Your task to perform on an android device: turn on javascript in the chrome app Image 0: 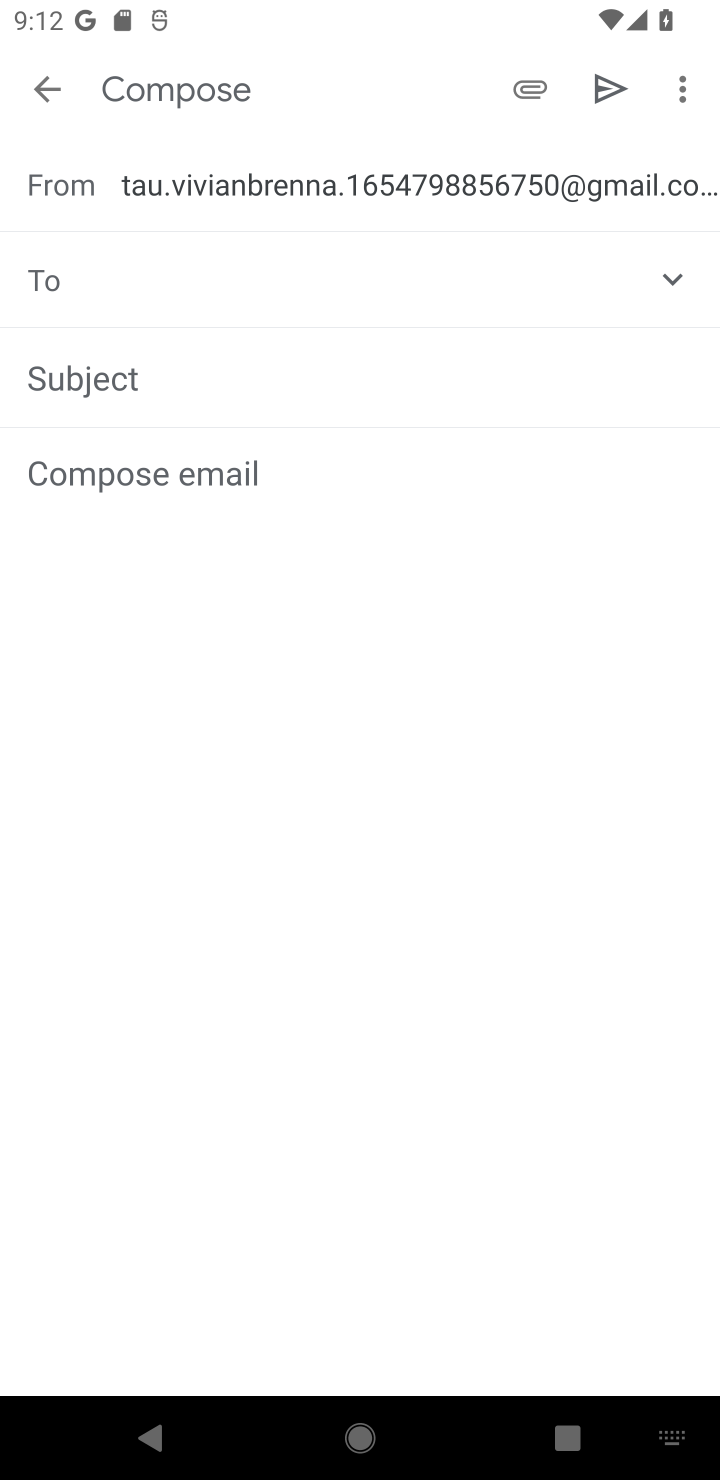
Step 0: press home button
Your task to perform on an android device: turn on javascript in the chrome app Image 1: 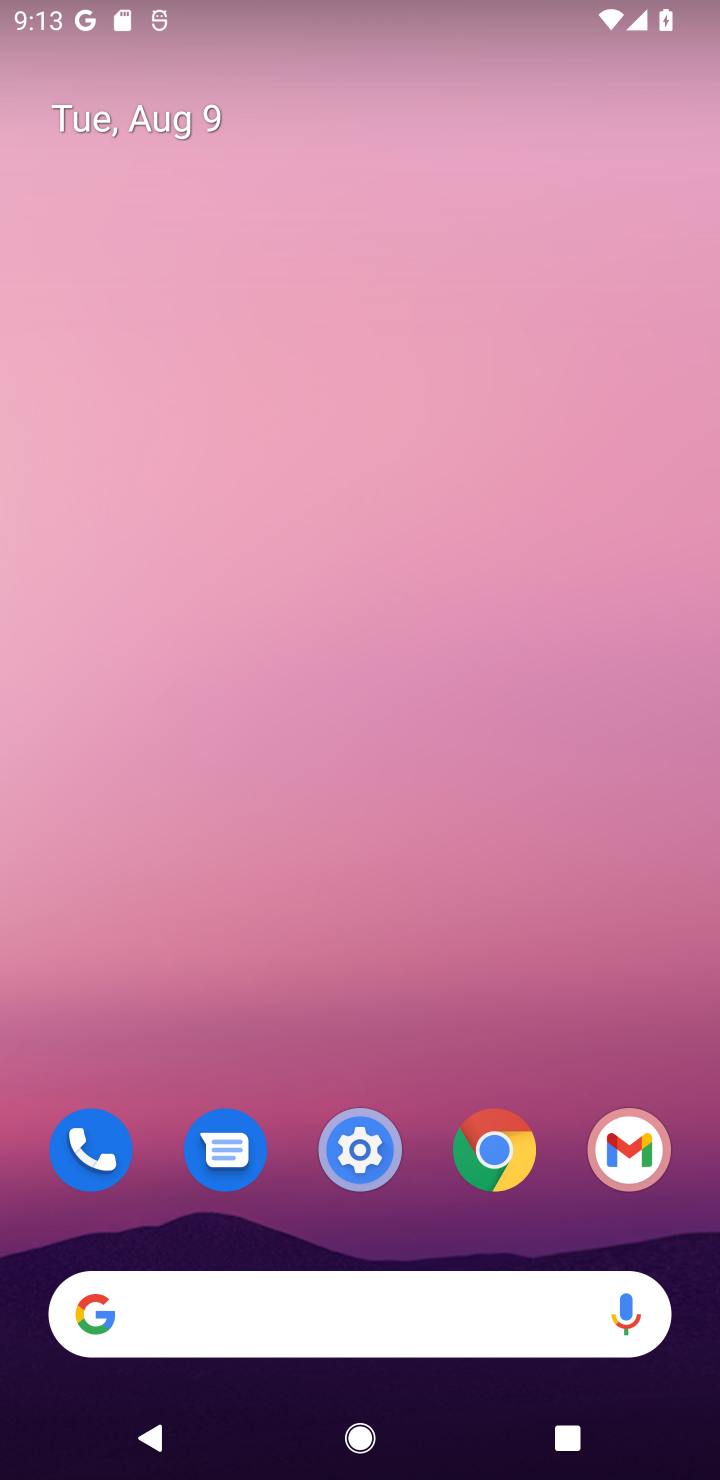
Step 1: drag from (344, 1258) to (353, 984)
Your task to perform on an android device: turn on javascript in the chrome app Image 2: 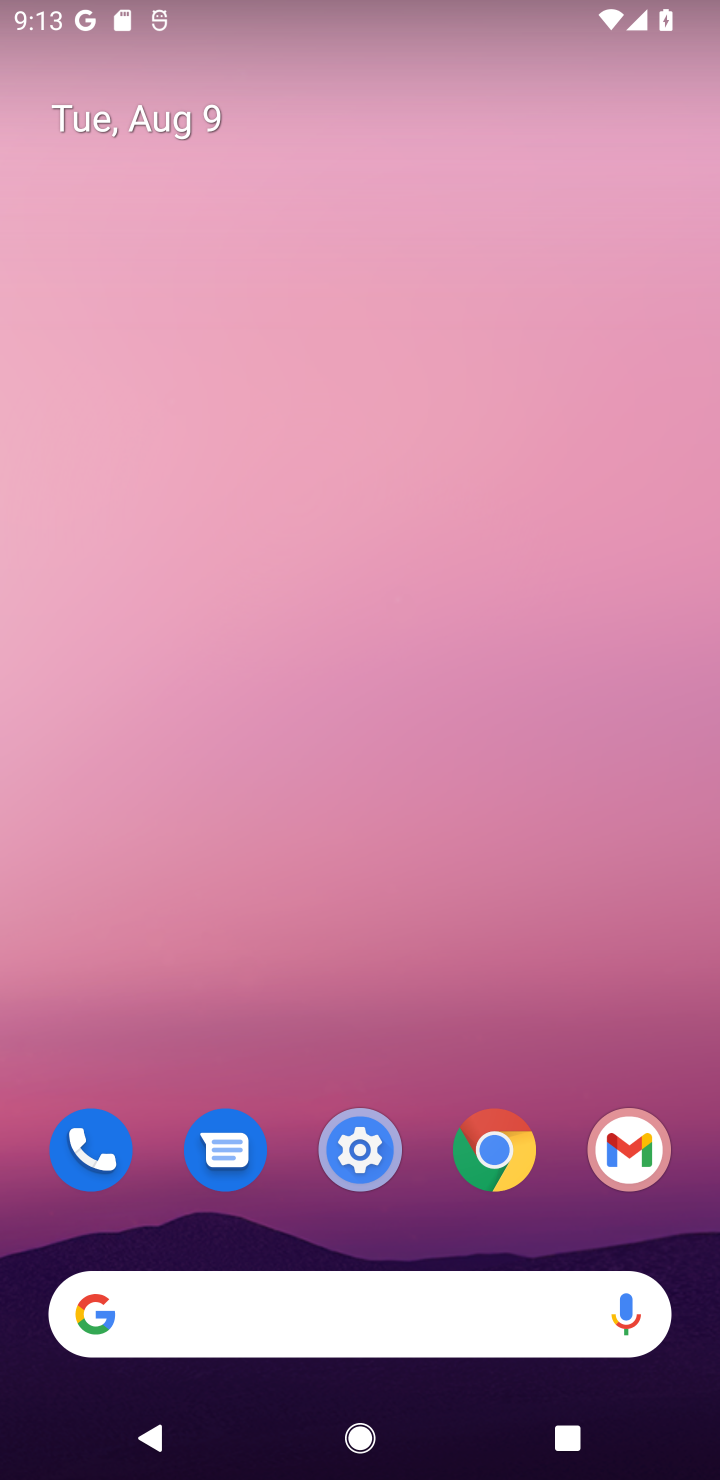
Step 2: drag from (309, 1267) to (284, 238)
Your task to perform on an android device: turn on javascript in the chrome app Image 3: 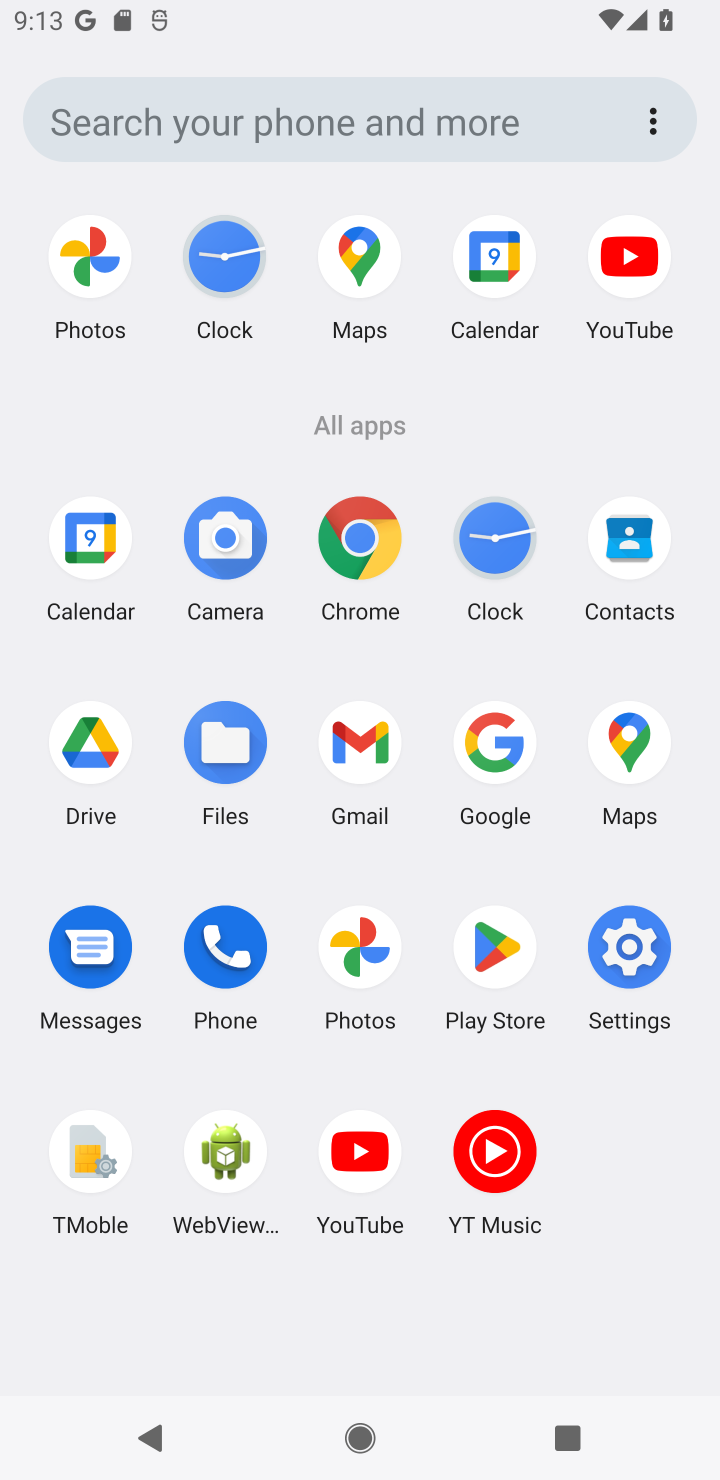
Step 3: click (326, 549)
Your task to perform on an android device: turn on javascript in the chrome app Image 4: 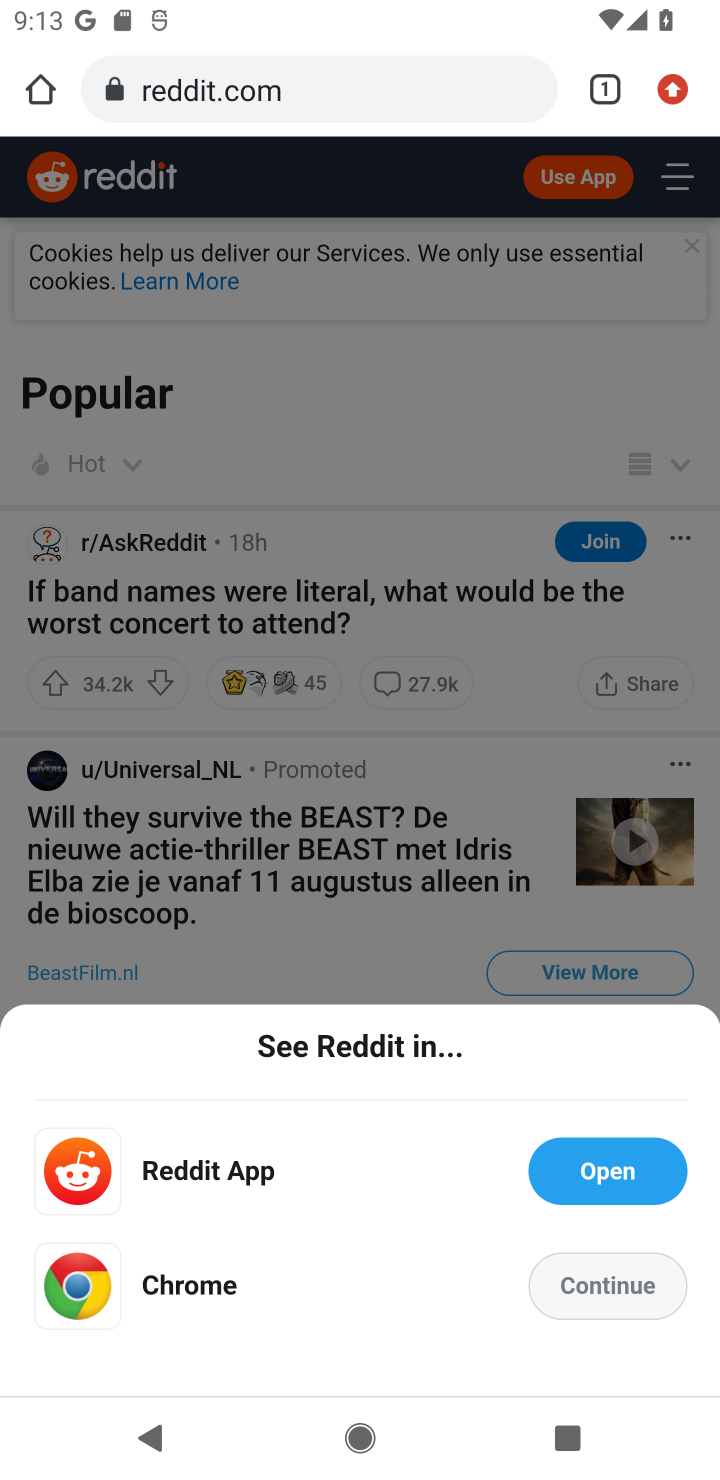
Step 4: click (429, 869)
Your task to perform on an android device: turn on javascript in the chrome app Image 5: 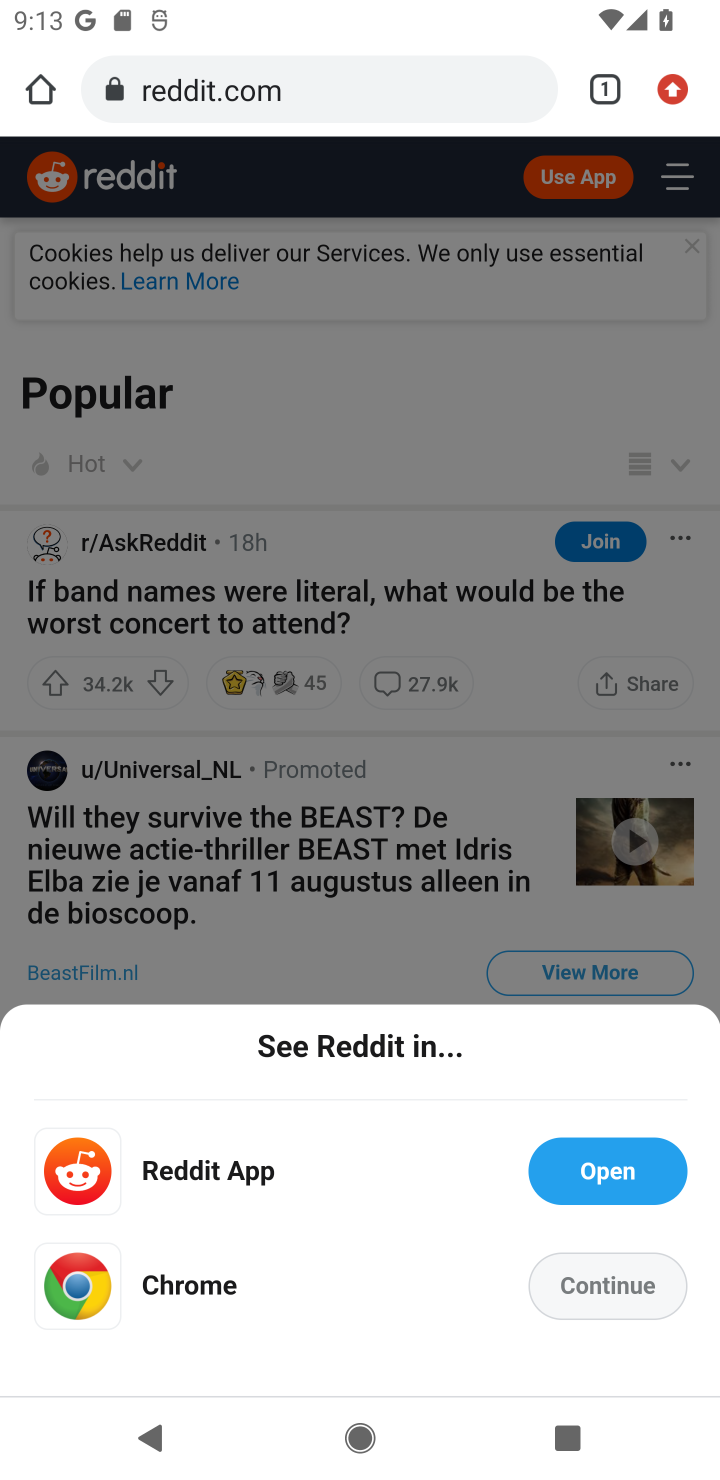
Step 5: click (540, 898)
Your task to perform on an android device: turn on javascript in the chrome app Image 6: 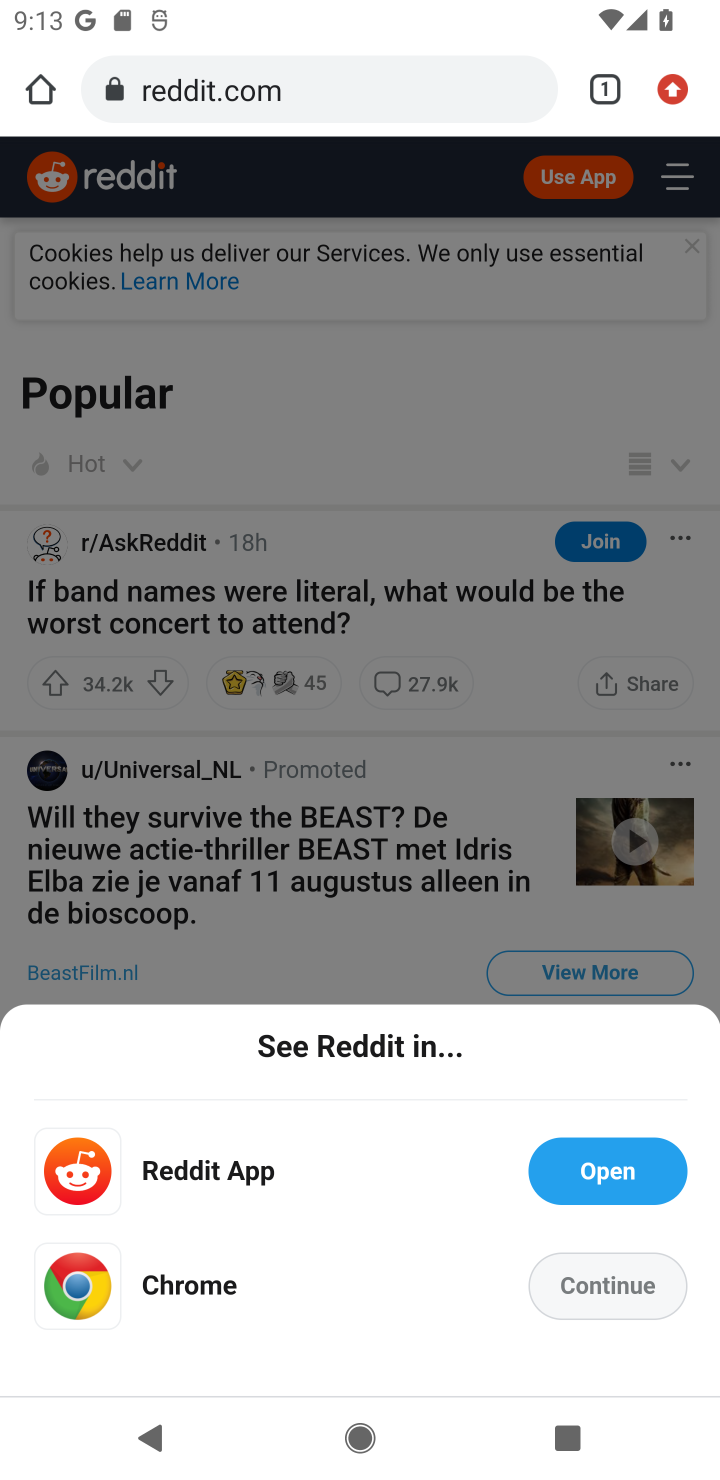
Step 6: click (660, 106)
Your task to perform on an android device: turn on javascript in the chrome app Image 7: 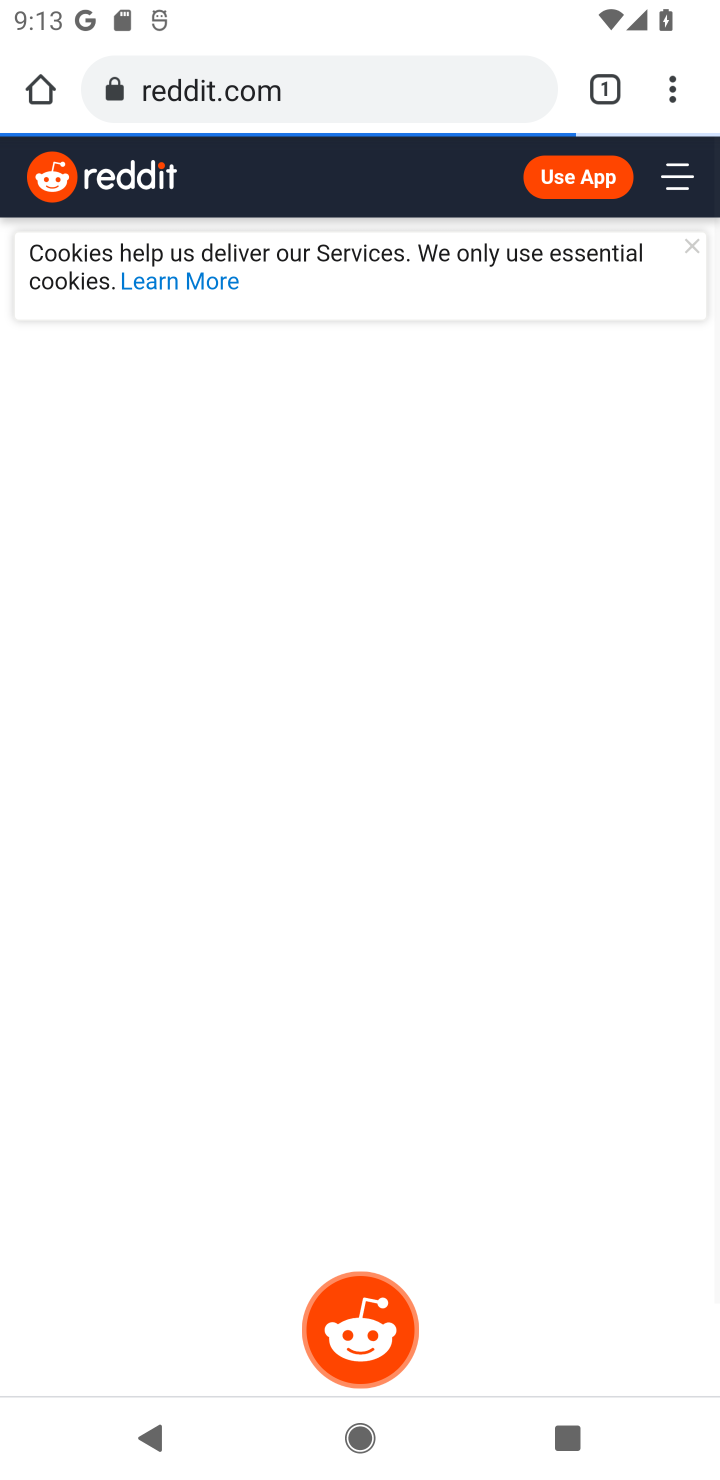
Step 7: click (660, 106)
Your task to perform on an android device: turn on javascript in the chrome app Image 8: 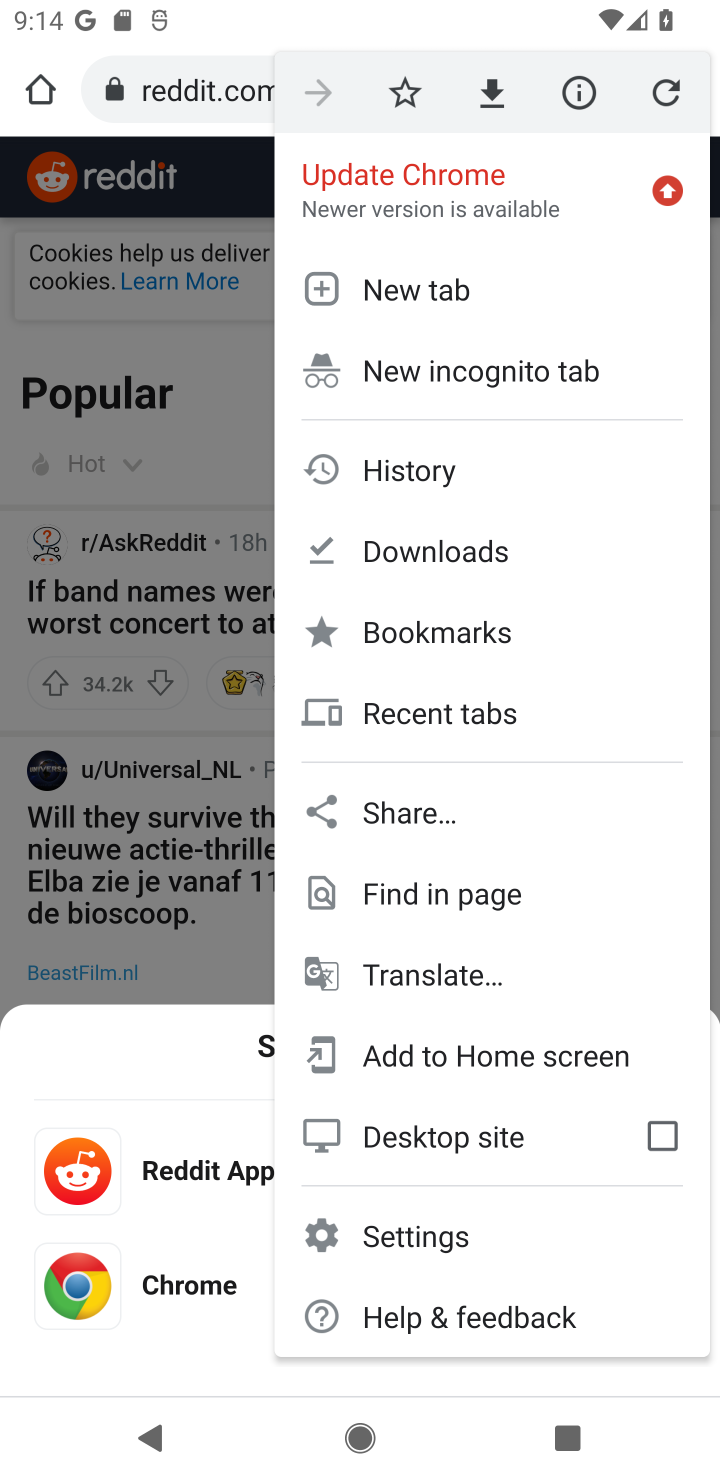
Step 8: click (381, 1239)
Your task to perform on an android device: turn on javascript in the chrome app Image 9: 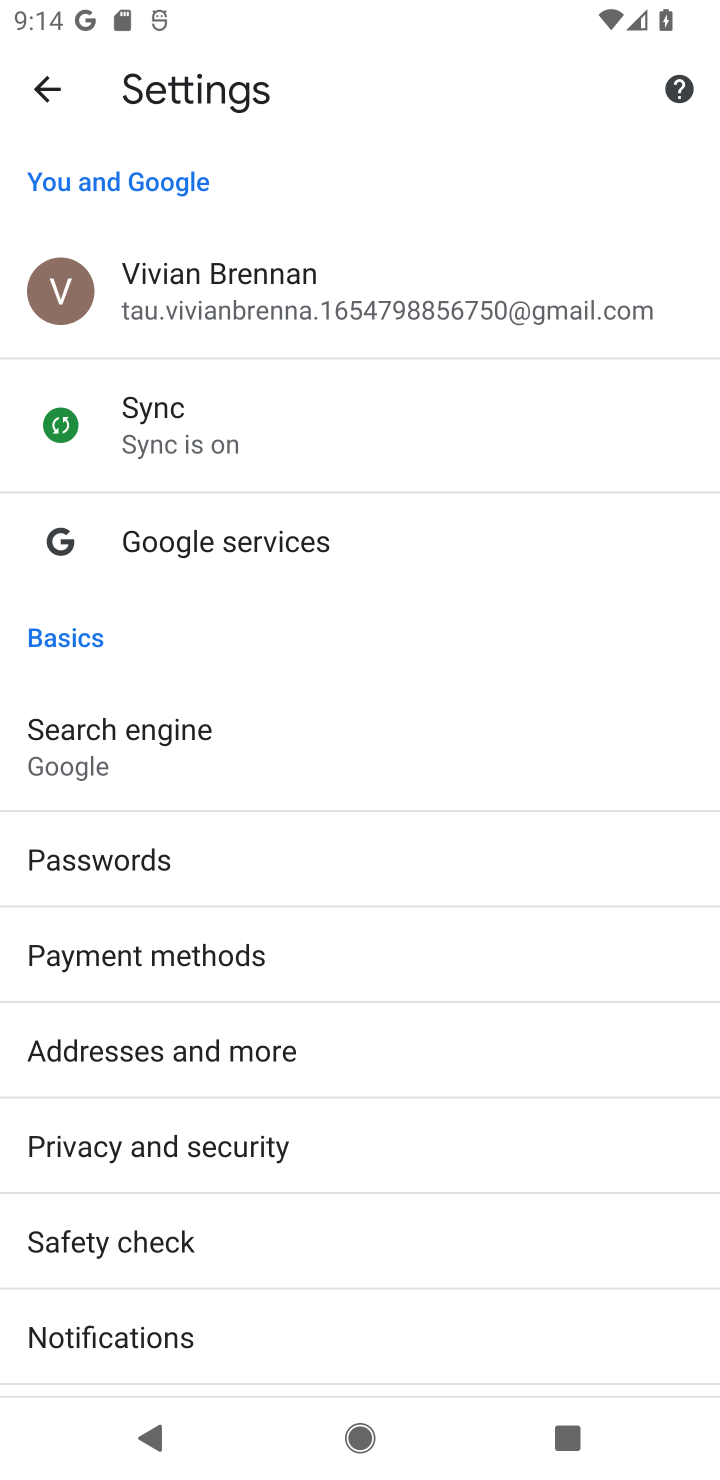
Step 9: drag from (297, 1046) to (331, 490)
Your task to perform on an android device: turn on javascript in the chrome app Image 10: 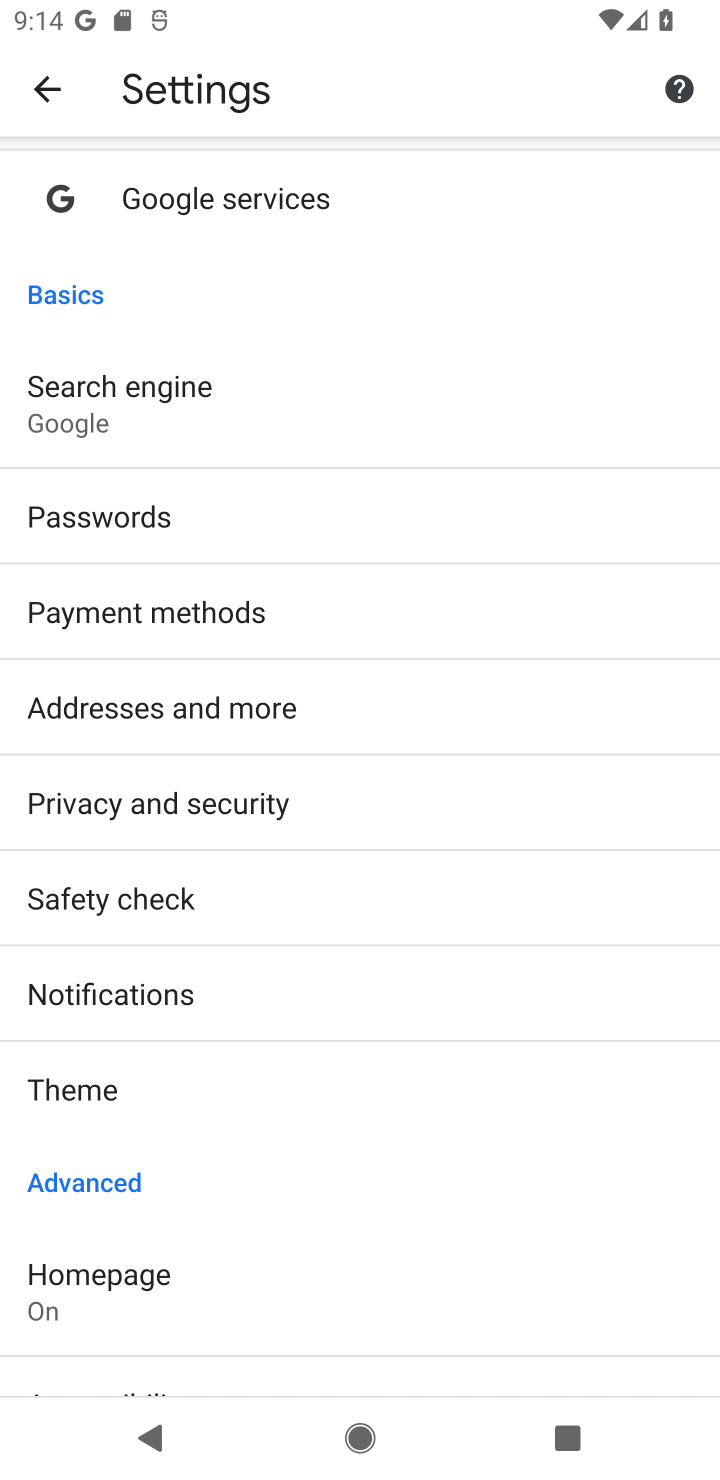
Step 10: drag from (334, 1148) to (326, 484)
Your task to perform on an android device: turn on javascript in the chrome app Image 11: 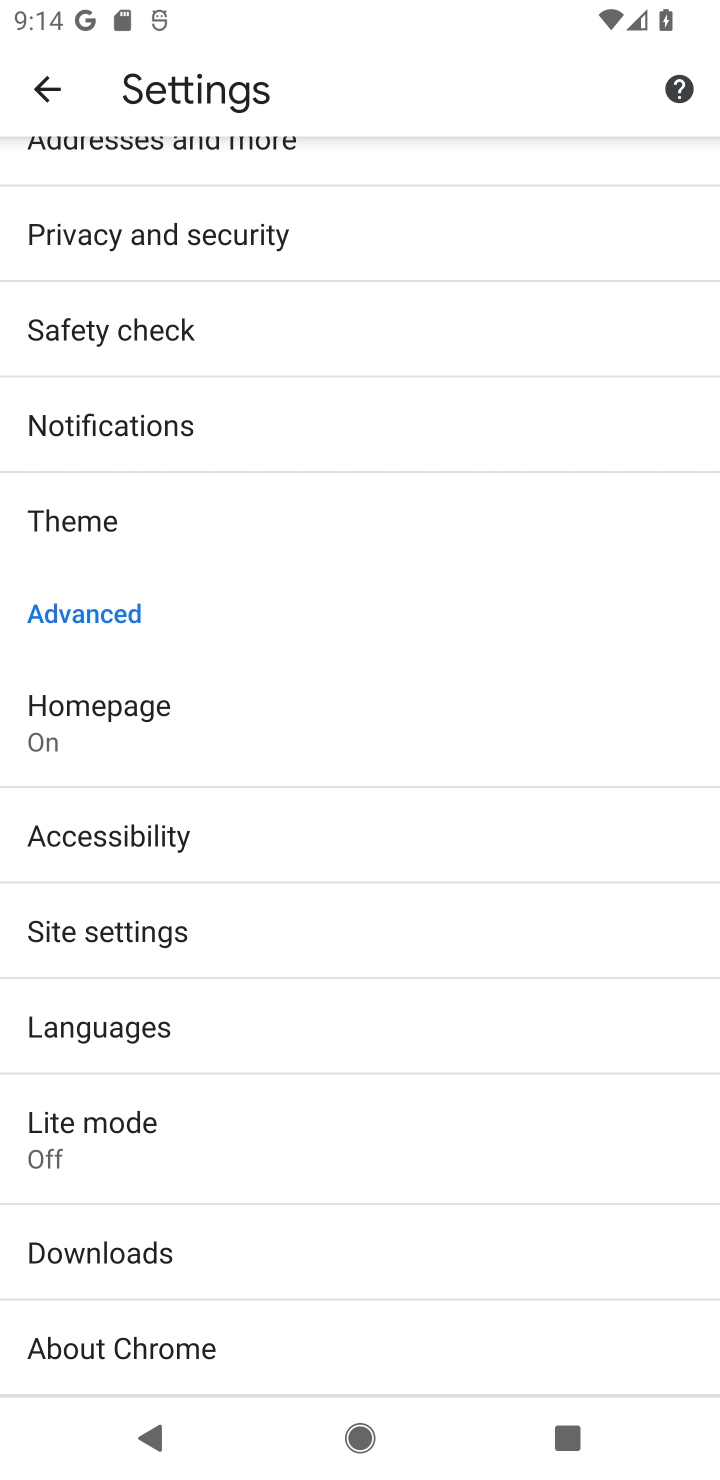
Step 11: click (328, 936)
Your task to perform on an android device: turn on javascript in the chrome app Image 12: 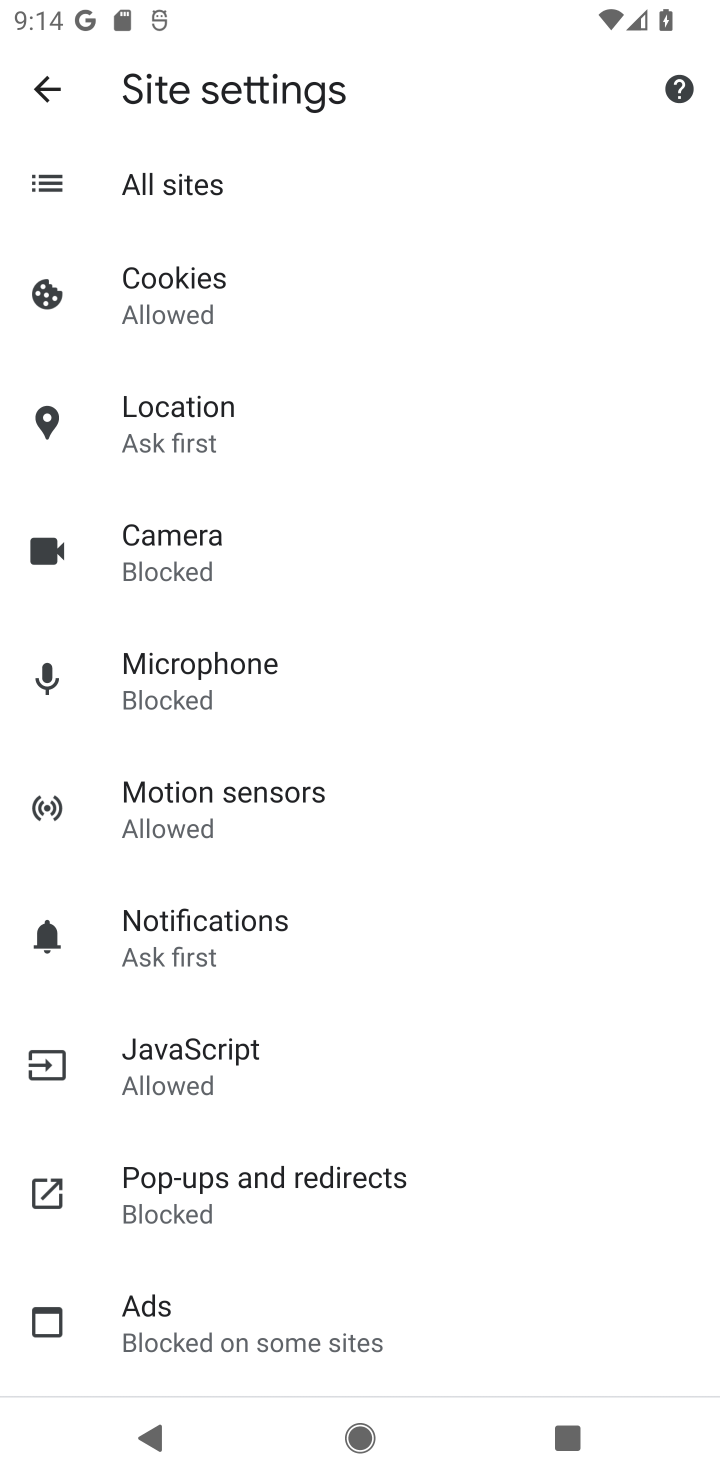
Step 12: click (269, 1076)
Your task to perform on an android device: turn on javascript in the chrome app Image 13: 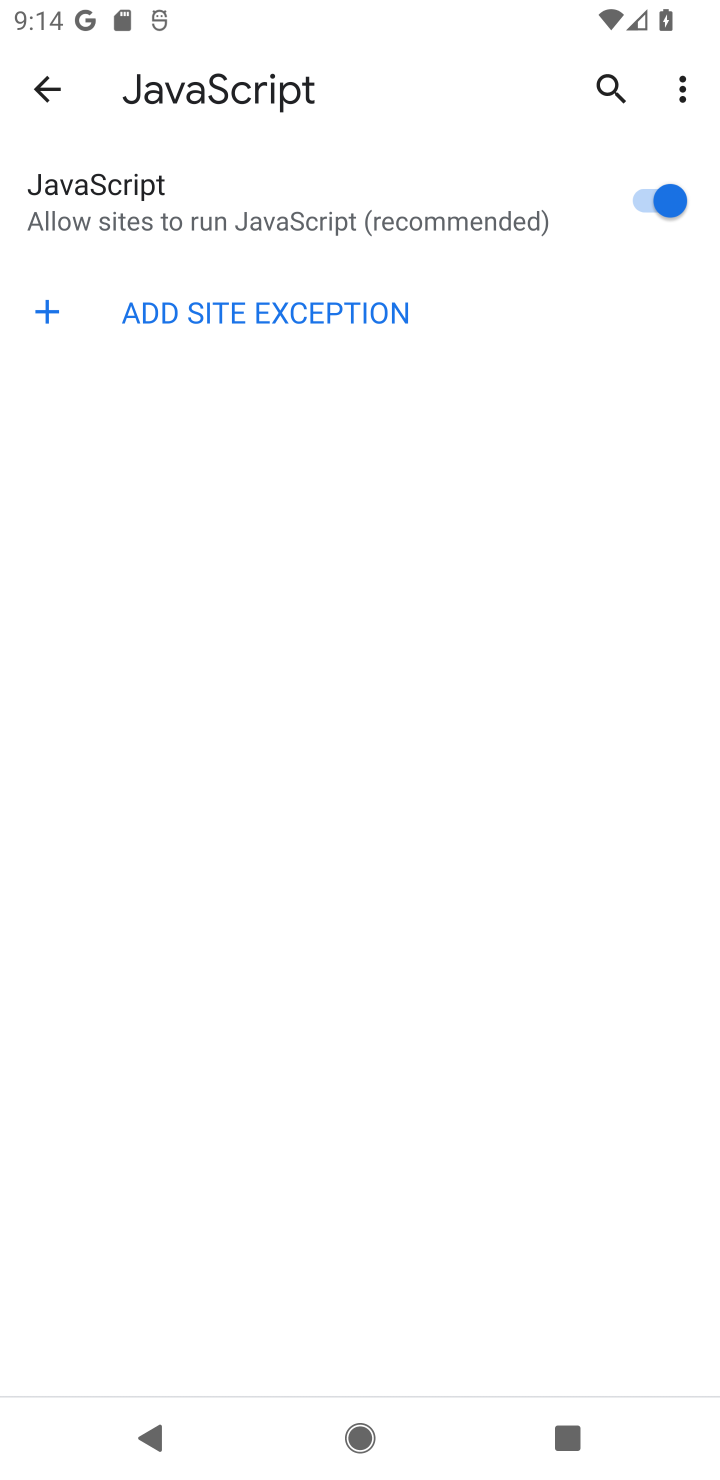
Step 13: task complete